Your task to perform on an android device: What's US dollar exchange rate against the British Pound? Image 0: 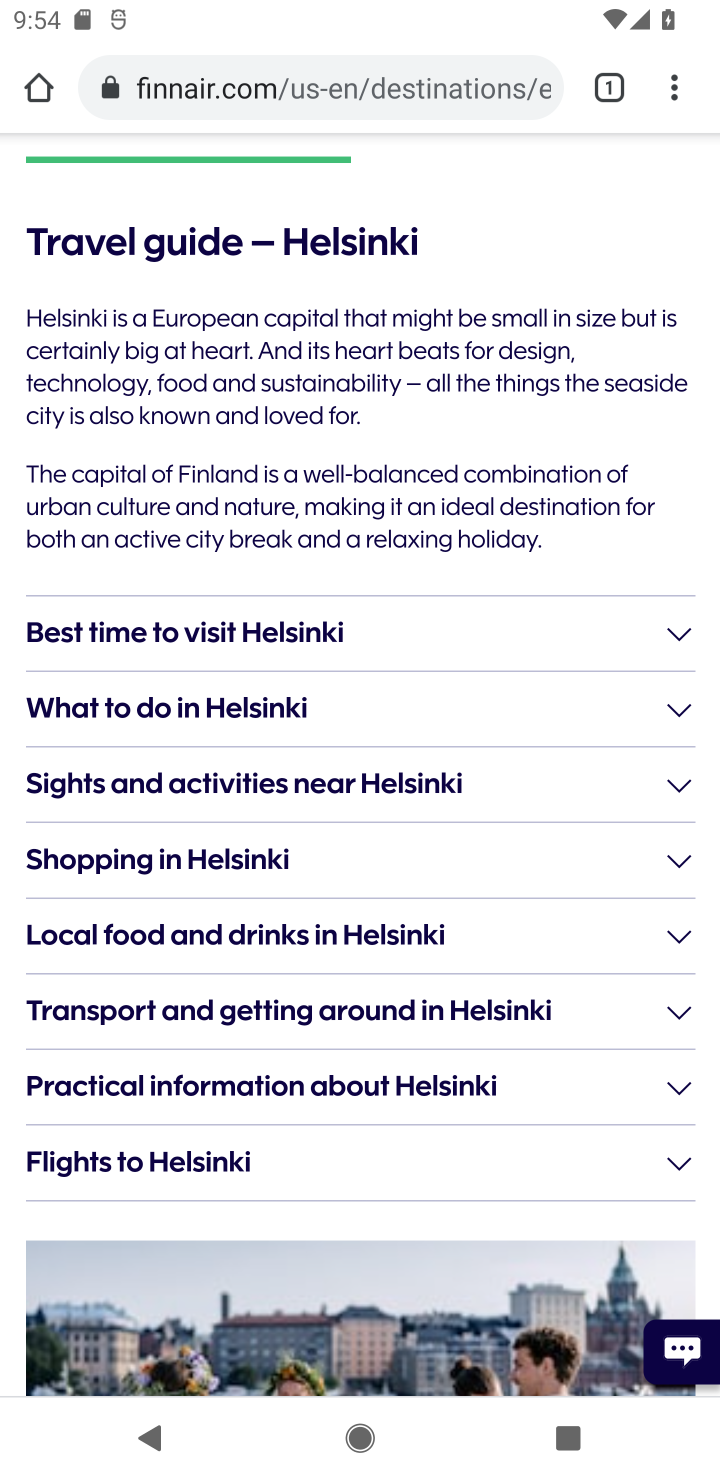
Step 0: press home button
Your task to perform on an android device: What's US dollar exchange rate against the British Pound? Image 1: 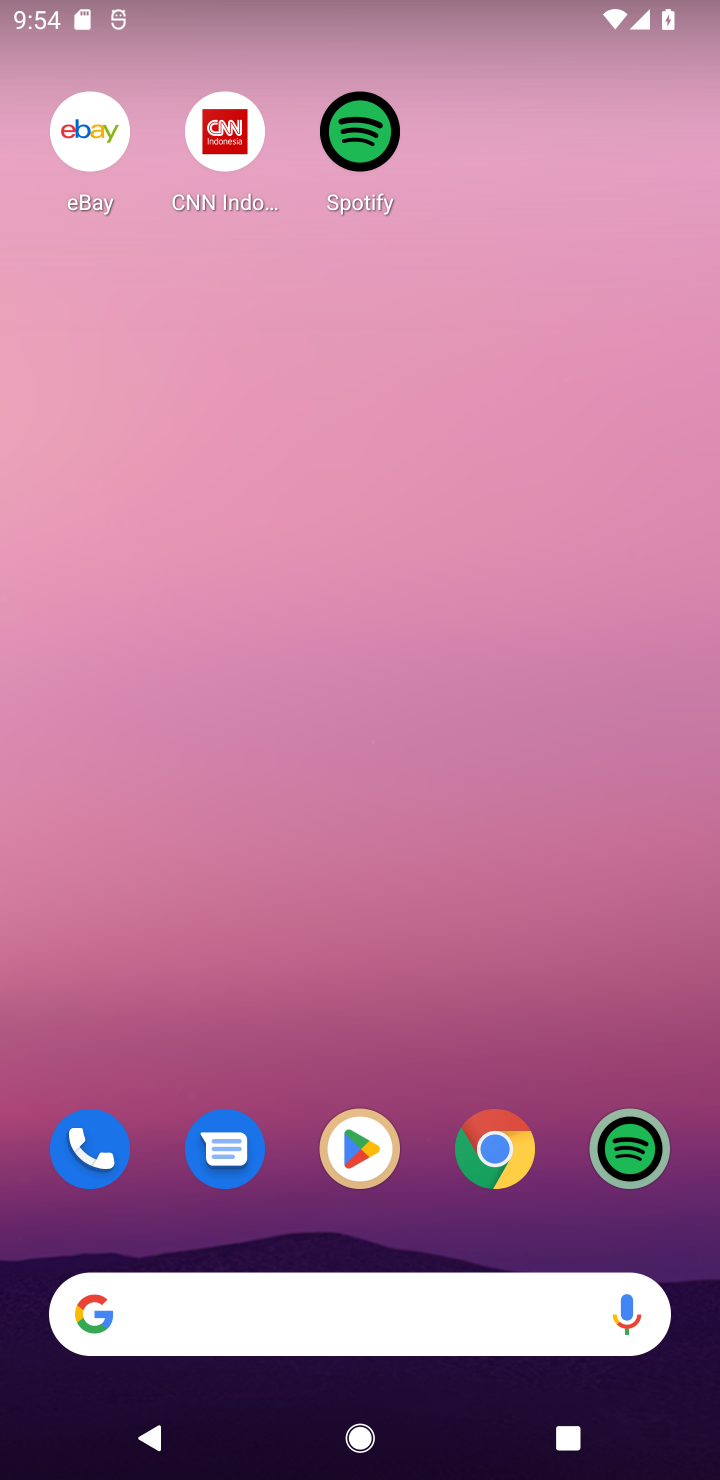
Step 1: click (241, 1315)
Your task to perform on an android device: What's US dollar exchange rate against the British Pound? Image 2: 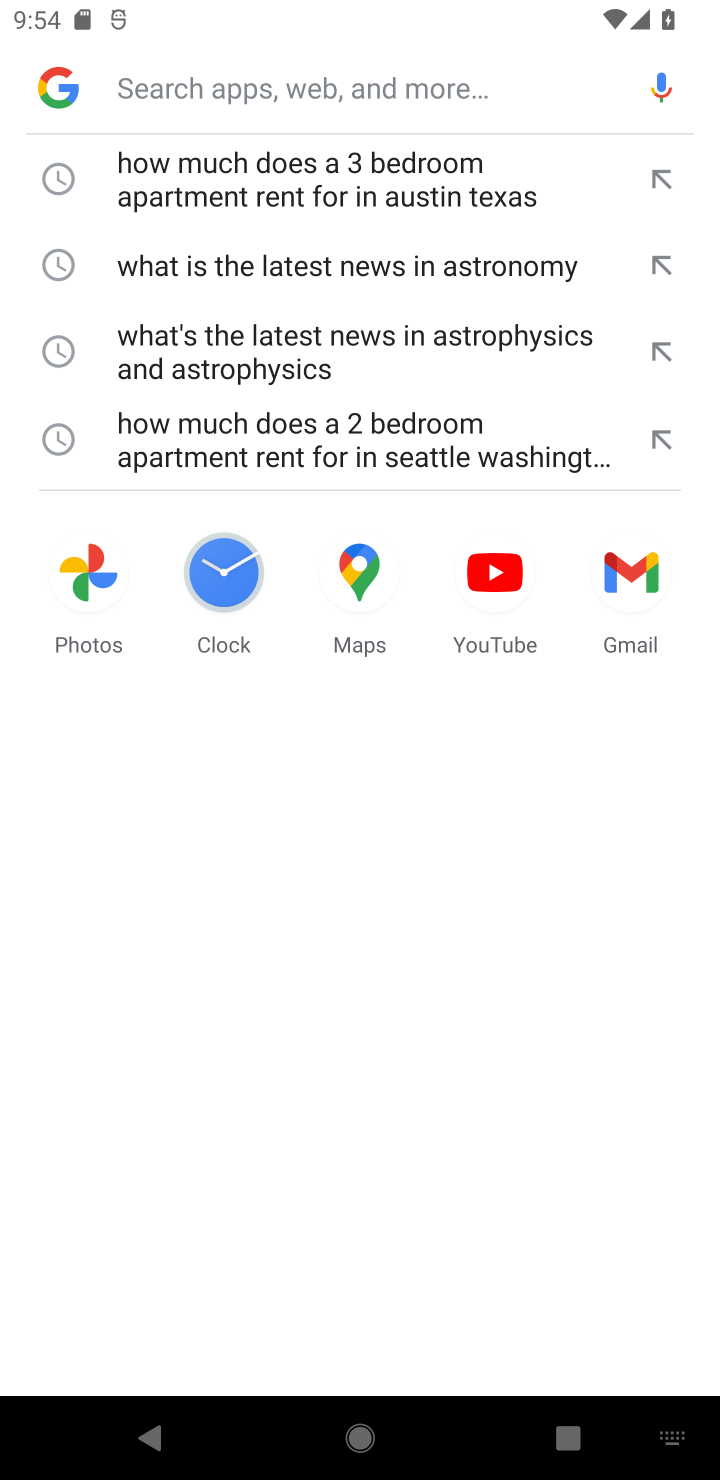
Step 2: type "What's US dollar exchange rate against the British Pound?"
Your task to perform on an android device: What's US dollar exchange rate against the British Pound? Image 3: 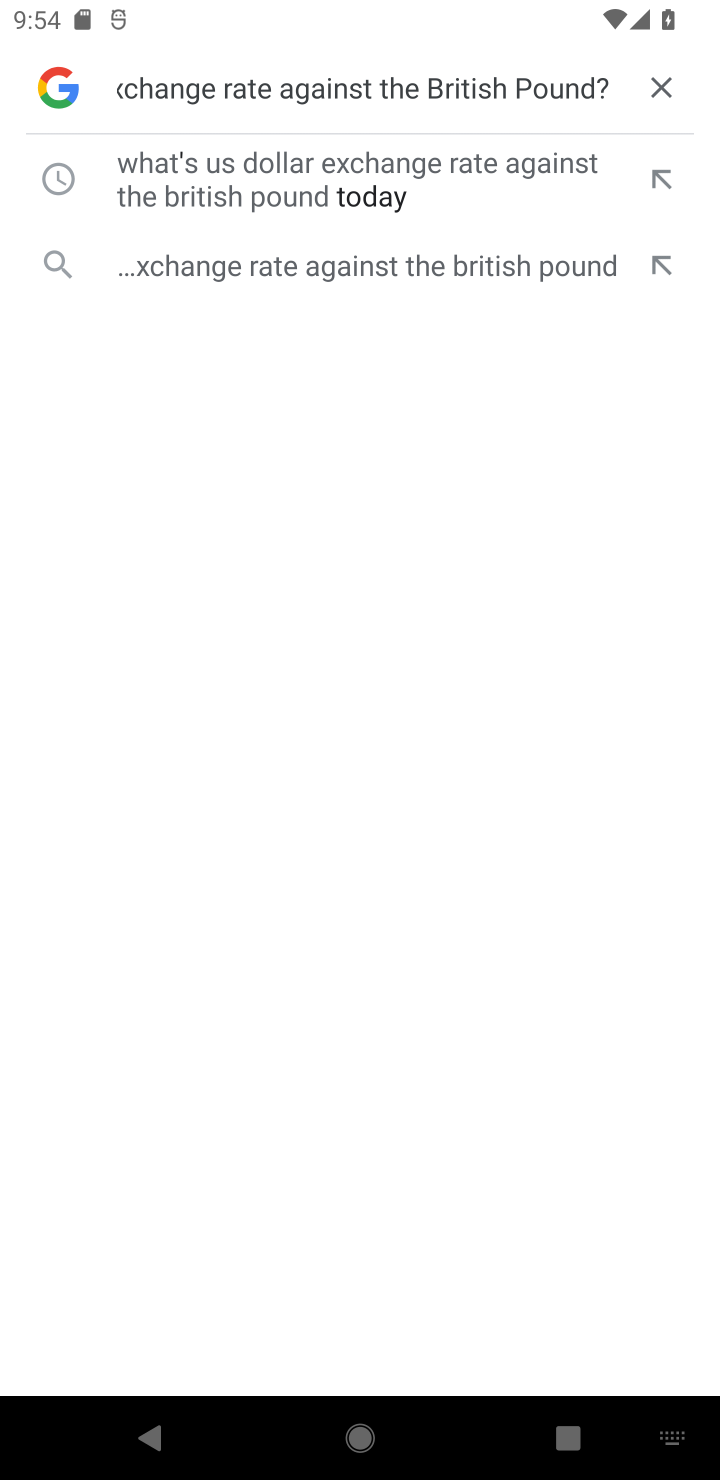
Step 3: click (330, 153)
Your task to perform on an android device: What's US dollar exchange rate against the British Pound? Image 4: 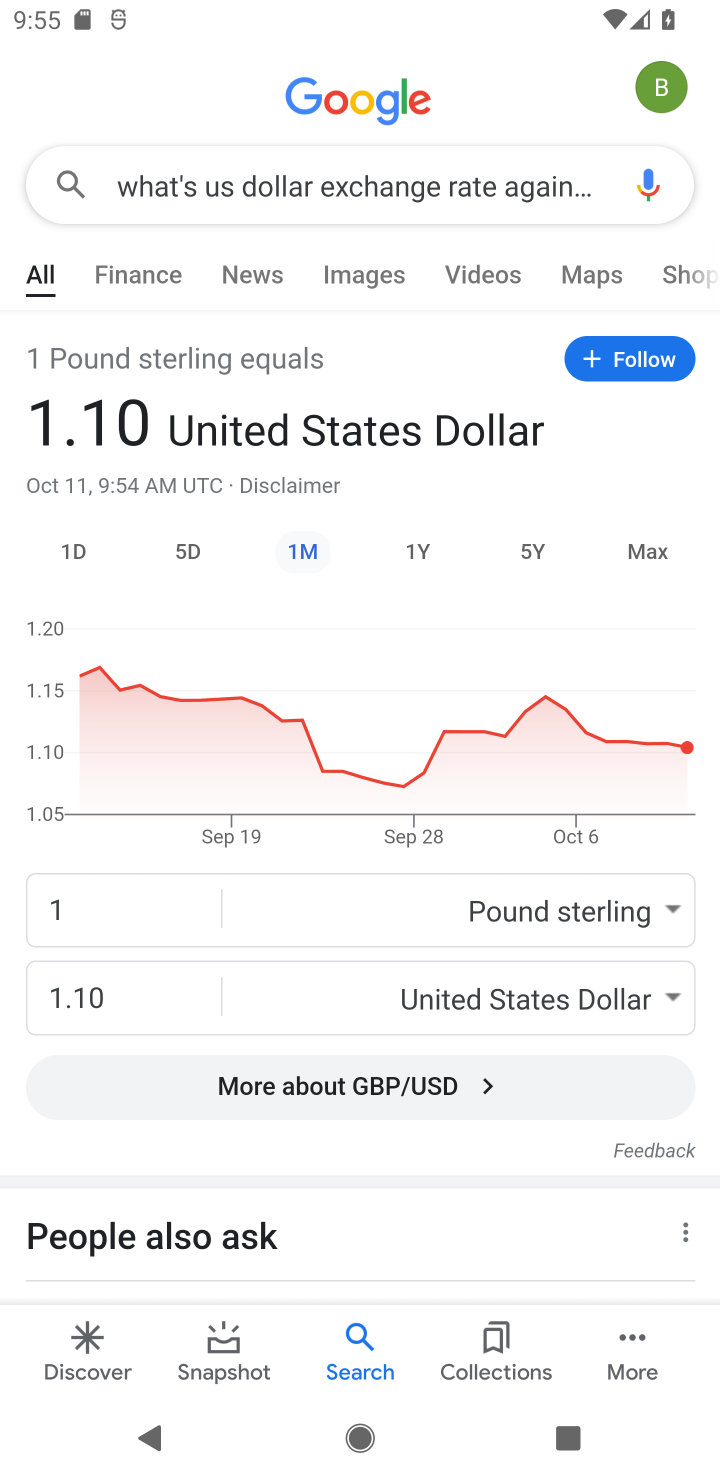
Step 4: task complete